Your task to perform on an android device: Open Youtube and go to "Your channel" Image 0: 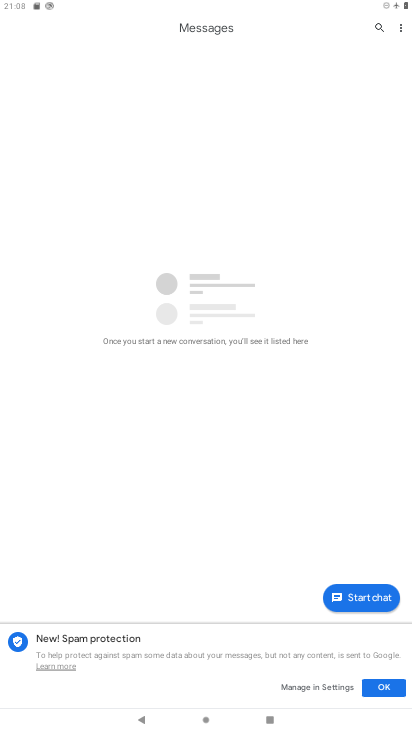
Step 0: press home button
Your task to perform on an android device: Open Youtube and go to "Your channel" Image 1: 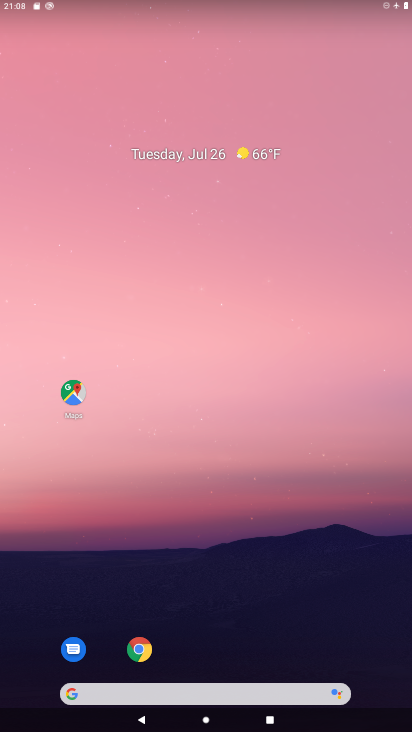
Step 1: drag from (177, 720) to (234, 296)
Your task to perform on an android device: Open Youtube and go to "Your channel" Image 2: 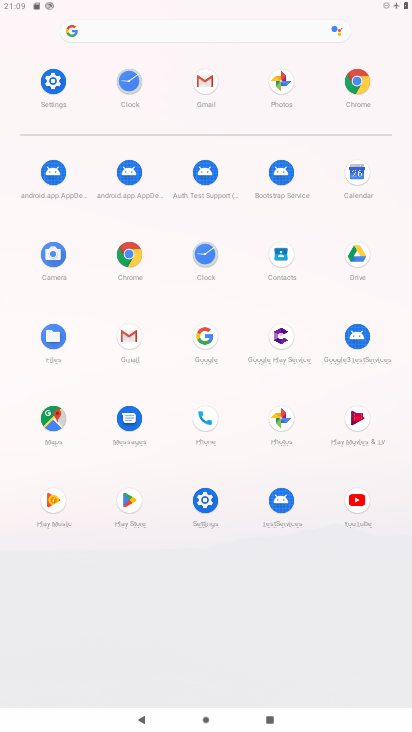
Step 2: click (358, 502)
Your task to perform on an android device: Open Youtube and go to "Your channel" Image 3: 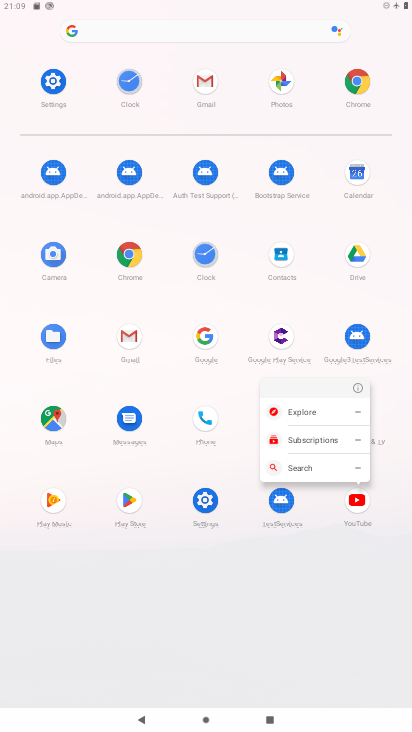
Step 3: click (358, 502)
Your task to perform on an android device: Open Youtube and go to "Your channel" Image 4: 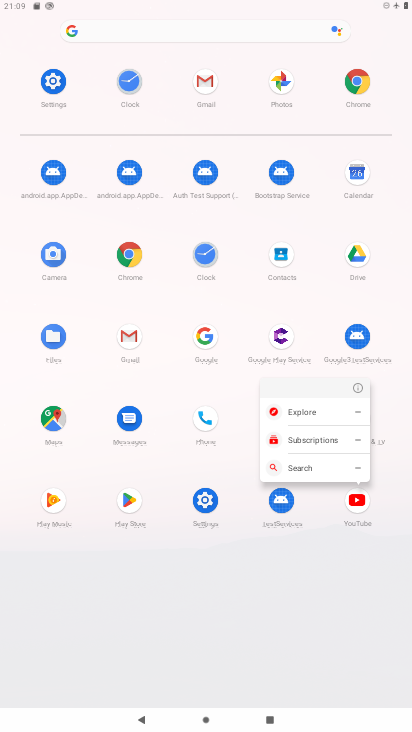
Step 4: click (358, 502)
Your task to perform on an android device: Open Youtube and go to "Your channel" Image 5: 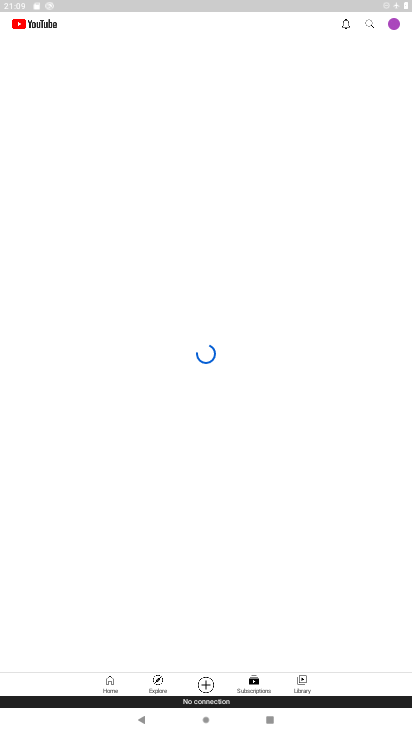
Step 5: click (398, 19)
Your task to perform on an android device: Open Youtube and go to "Your channel" Image 6: 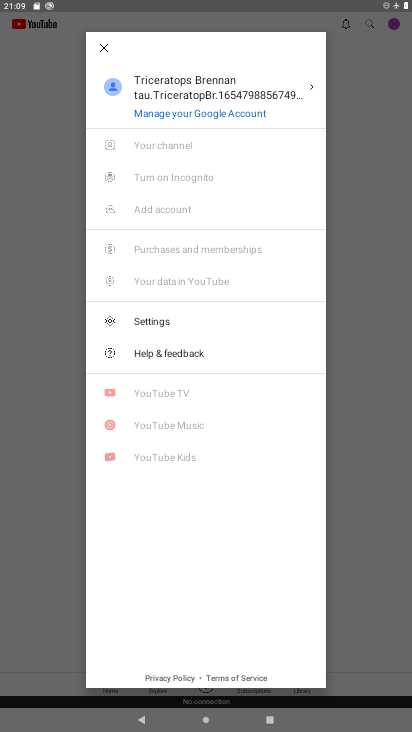
Step 6: click (201, 145)
Your task to perform on an android device: Open Youtube and go to "Your channel" Image 7: 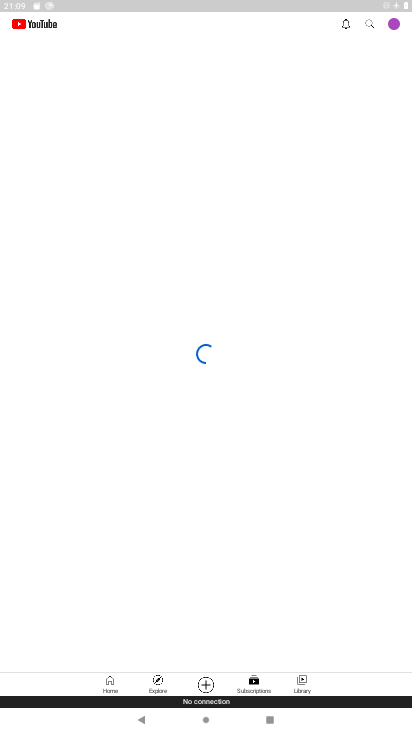
Step 7: click (397, 24)
Your task to perform on an android device: Open Youtube and go to "Your channel" Image 8: 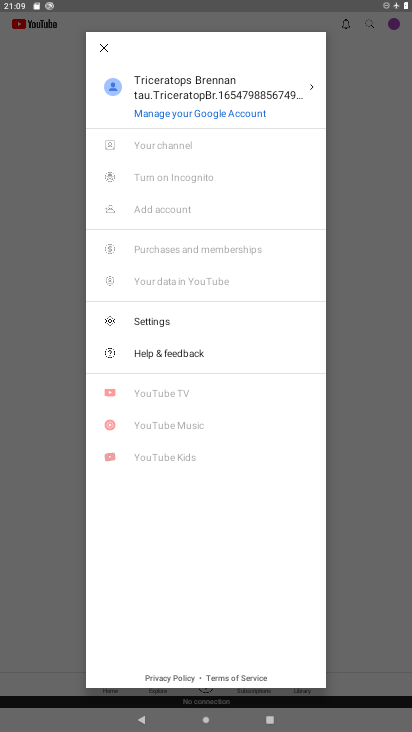
Step 8: task complete